Your task to perform on an android device: check data usage Image 0: 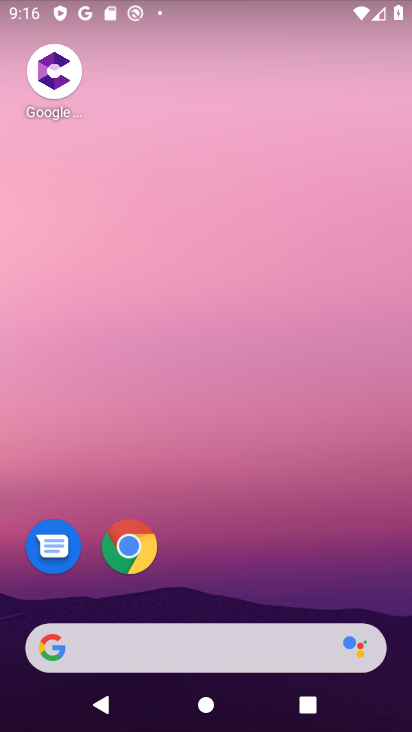
Step 0: drag from (202, 629) to (275, 109)
Your task to perform on an android device: check data usage Image 1: 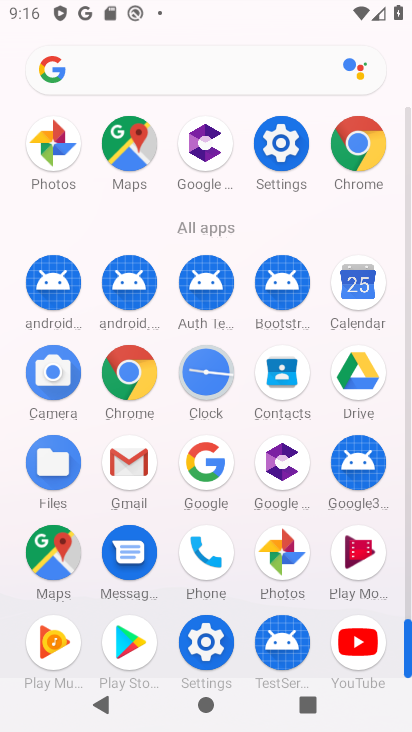
Step 1: drag from (176, 639) to (205, 513)
Your task to perform on an android device: check data usage Image 2: 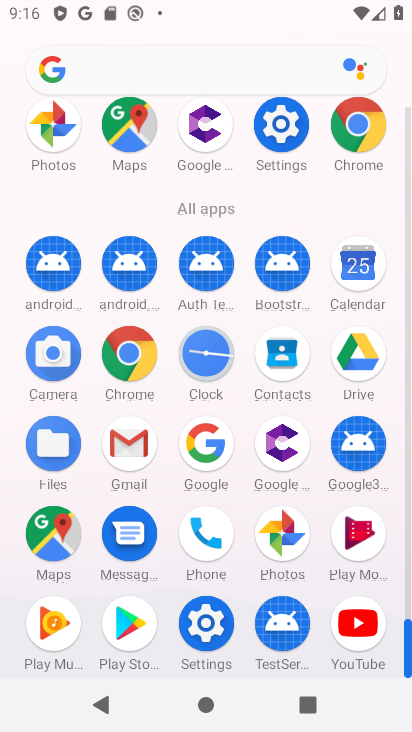
Step 2: click (213, 638)
Your task to perform on an android device: check data usage Image 3: 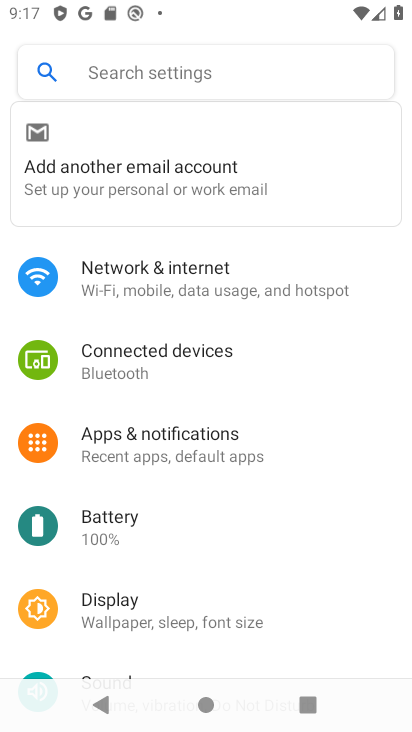
Step 3: click (211, 295)
Your task to perform on an android device: check data usage Image 4: 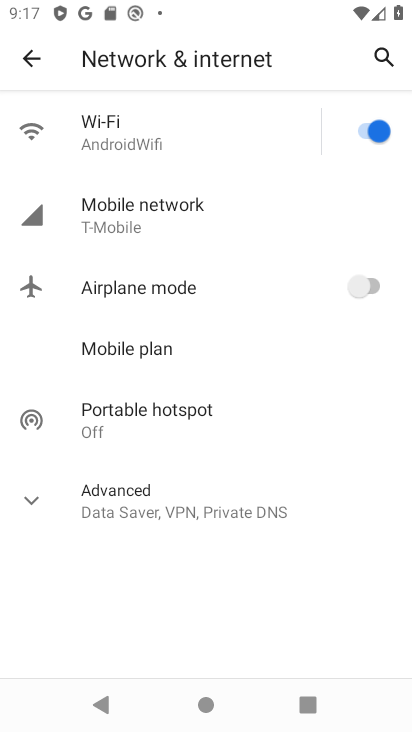
Step 4: click (192, 223)
Your task to perform on an android device: check data usage Image 5: 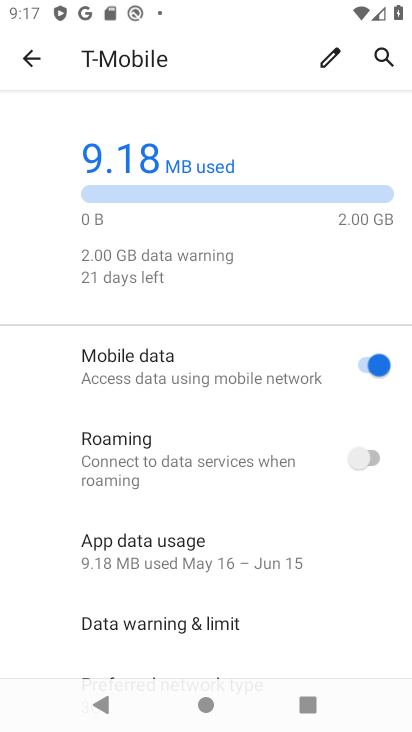
Step 5: click (205, 561)
Your task to perform on an android device: check data usage Image 6: 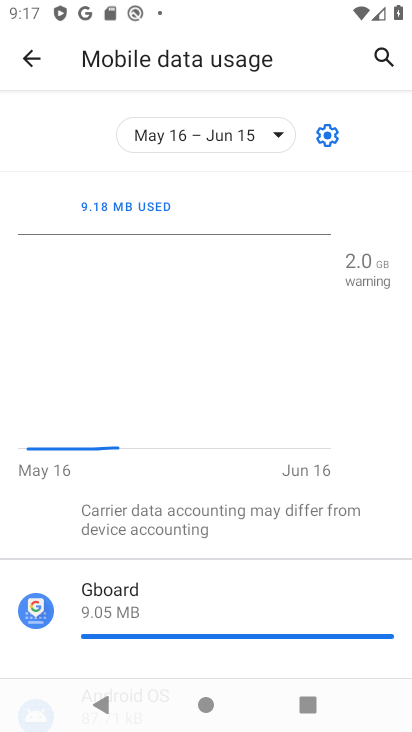
Step 6: task complete